Your task to perform on an android device: Open Amazon Image 0: 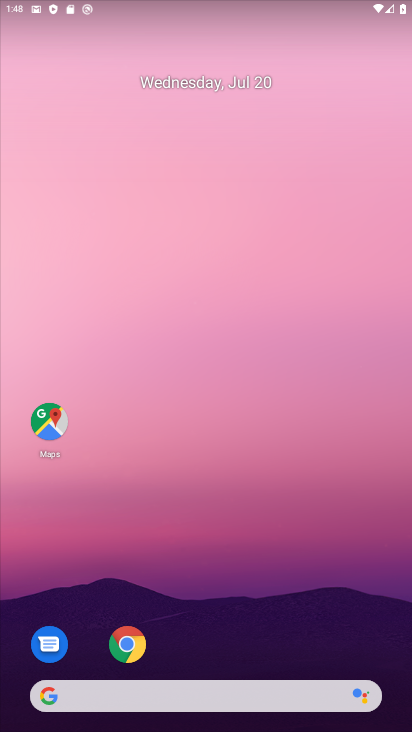
Step 0: press home button
Your task to perform on an android device: Open Amazon Image 1: 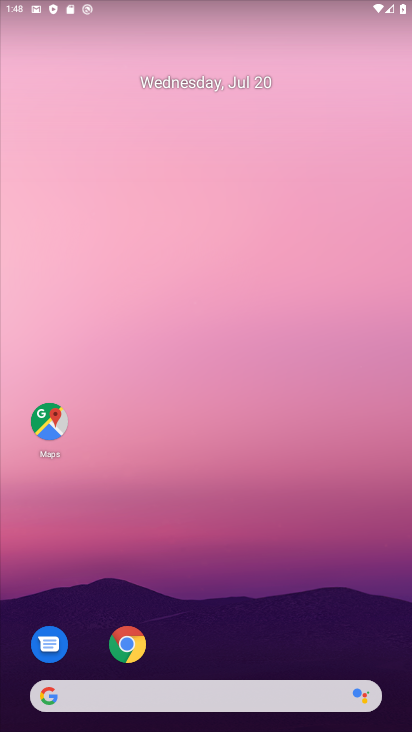
Step 1: click (115, 644)
Your task to perform on an android device: Open Amazon Image 2: 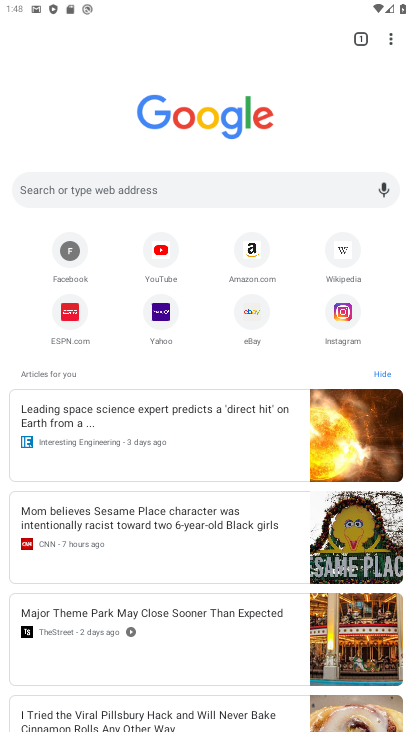
Step 2: click (223, 262)
Your task to perform on an android device: Open Amazon Image 3: 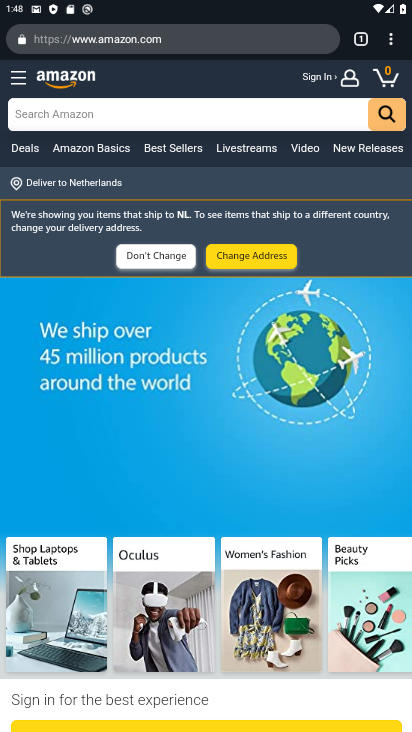
Step 3: task complete